Your task to perform on an android device: add a contact in the contacts app Image 0: 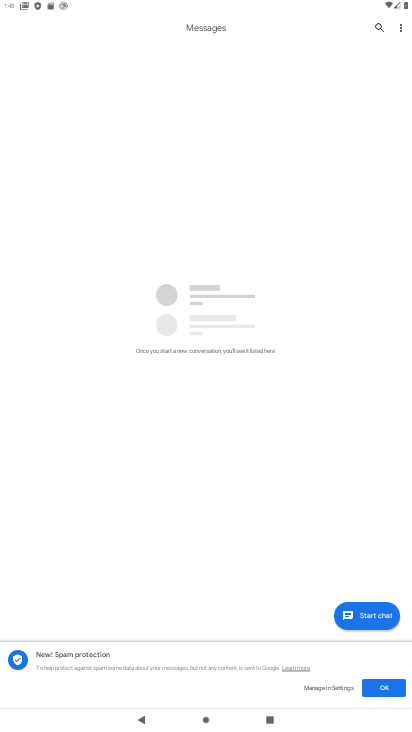
Step 0: press home button
Your task to perform on an android device: add a contact in the contacts app Image 1: 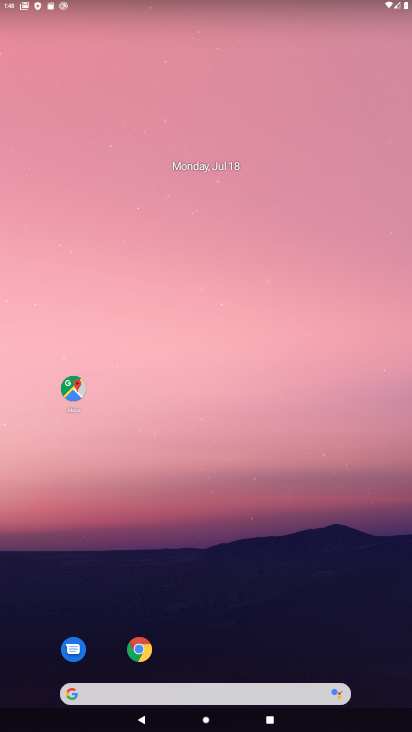
Step 1: drag from (232, 669) to (117, 165)
Your task to perform on an android device: add a contact in the contacts app Image 2: 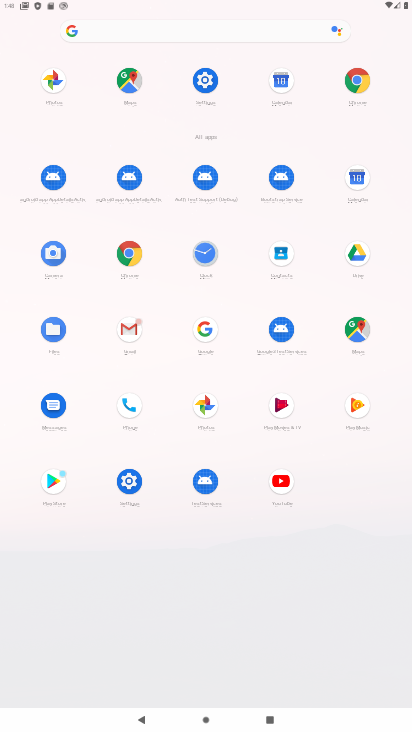
Step 2: click (132, 408)
Your task to perform on an android device: add a contact in the contacts app Image 3: 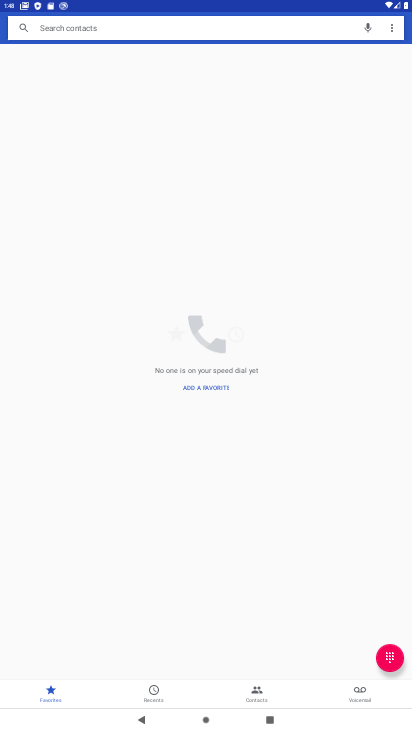
Step 3: click (255, 696)
Your task to perform on an android device: add a contact in the contacts app Image 4: 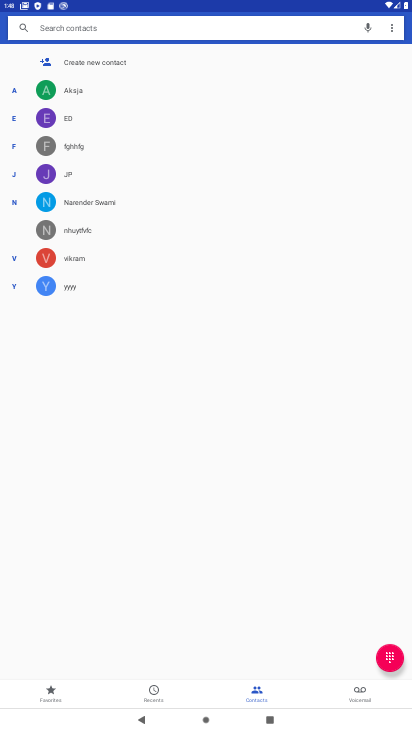
Step 4: click (70, 64)
Your task to perform on an android device: add a contact in the contacts app Image 5: 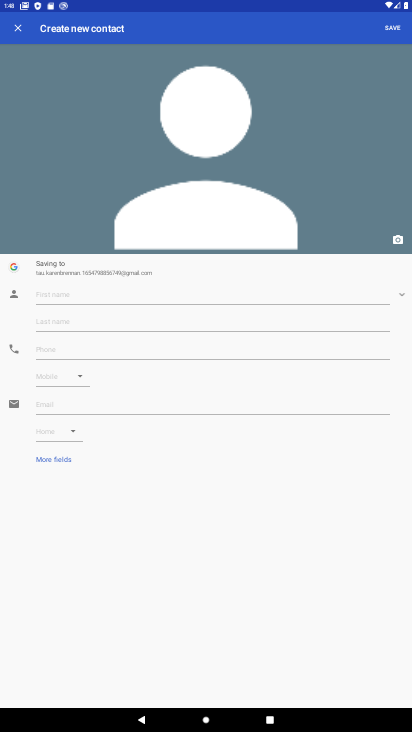
Step 5: click (74, 293)
Your task to perform on an android device: add a contact in the contacts app Image 6: 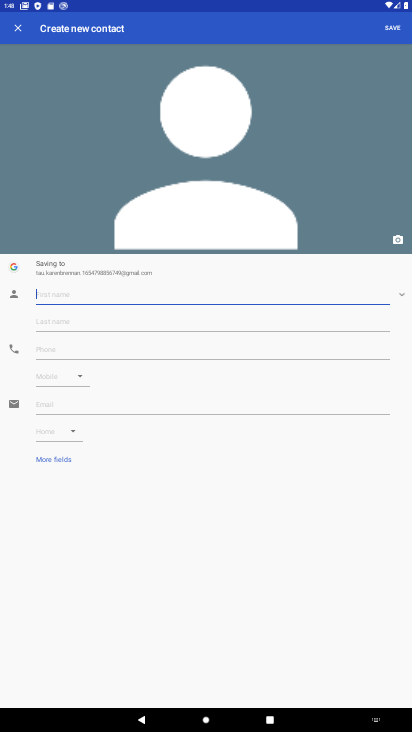
Step 6: type "ertyyyyyyyy"
Your task to perform on an android device: add a contact in the contacts app Image 7: 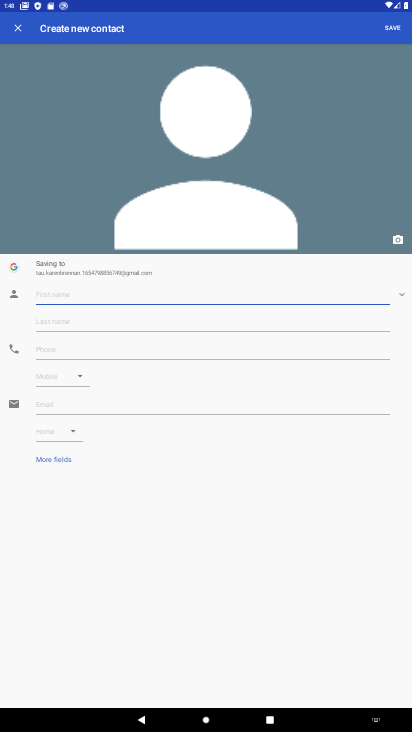
Step 7: click (46, 347)
Your task to perform on an android device: add a contact in the contacts app Image 8: 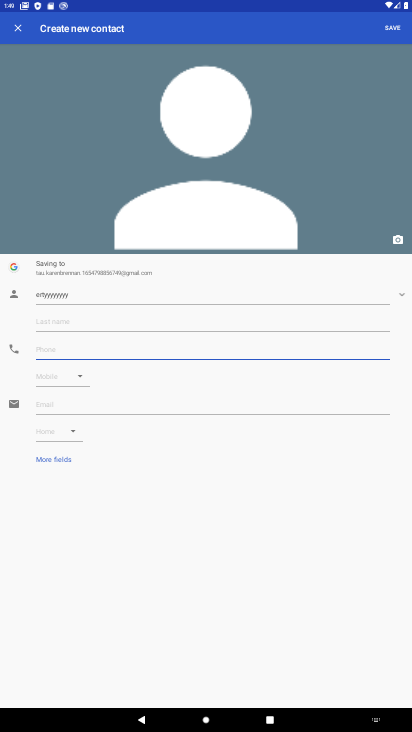
Step 8: type "4567656"
Your task to perform on an android device: add a contact in the contacts app Image 9: 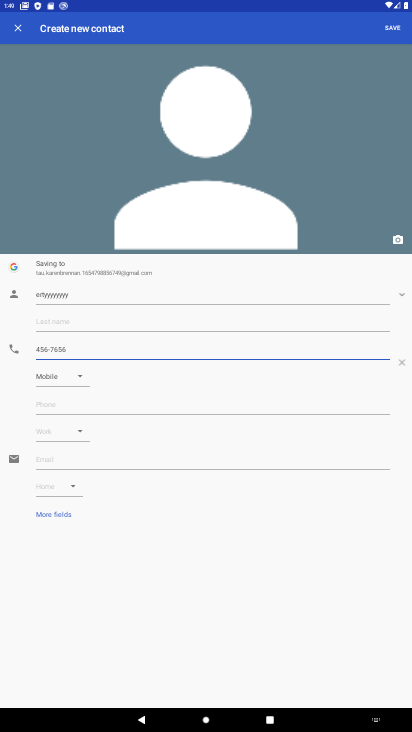
Step 9: click (399, 31)
Your task to perform on an android device: add a contact in the contacts app Image 10: 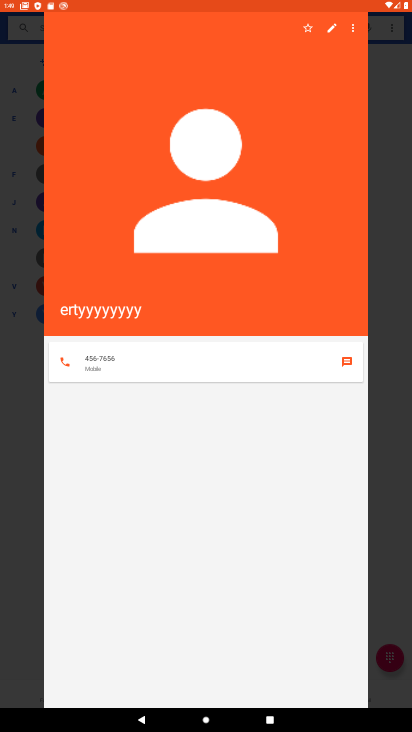
Step 10: task complete